Your task to perform on an android device: Do I have any events tomorrow? Image 0: 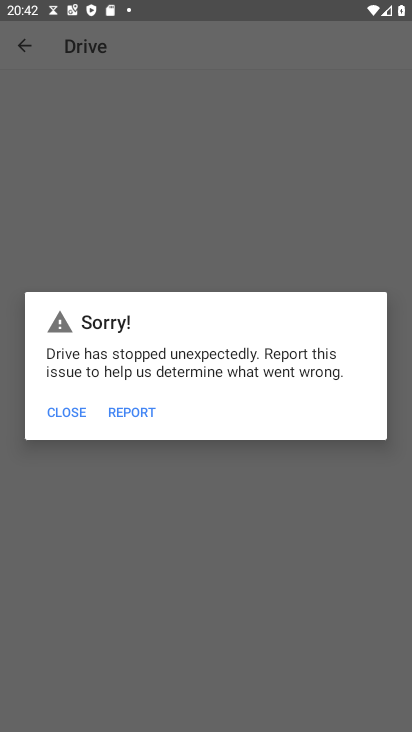
Step 0: press home button
Your task to perform on an android device: Do I have any events tomorrow? Image 1: 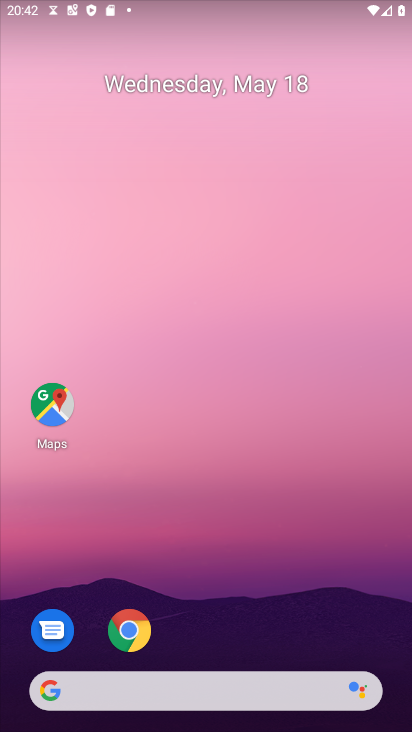
Step 1: drag from (146, 678) to (217, 152)
Your task to perform on an android device: Do I have any events tomorrow? Image 2: 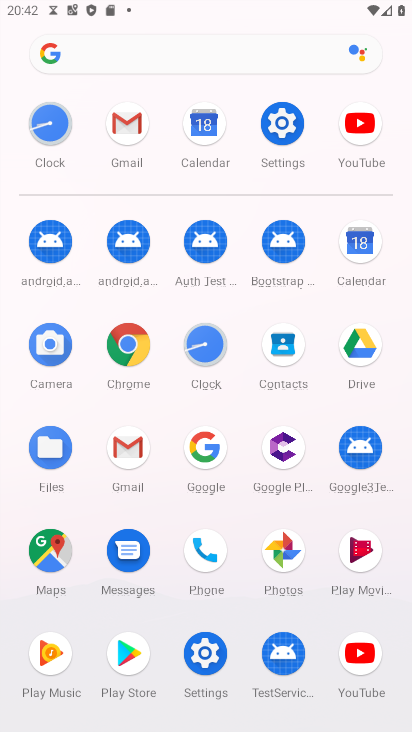
Step 2: click (364, 246)
Your task to perform on an android device: Do I have any events tomorrow? Image 3: 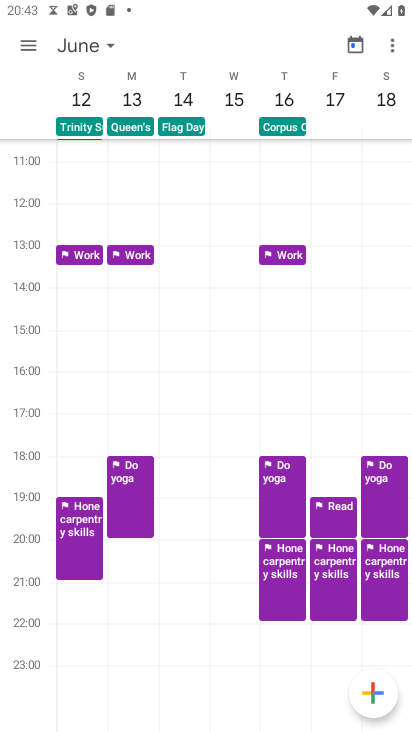
Step 3: click (72, 47)
Your task to perform on an android device: Do I have any events tomorrow? Image 4: 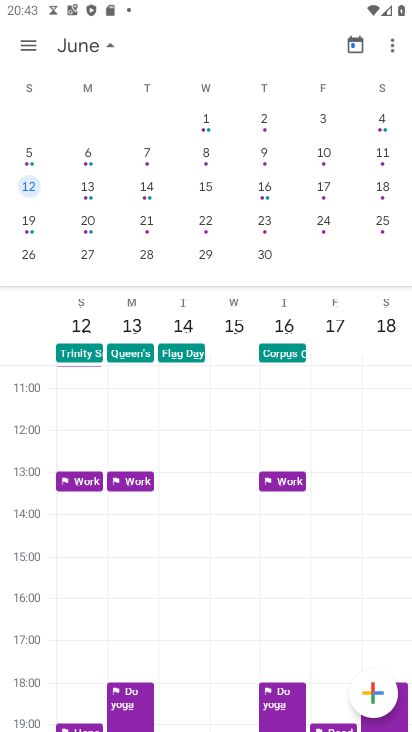
Step 4: drag from (56, 207) to (405, 235)
Your task to perform on an android device: Do I have any events tomorrow? Image 5: 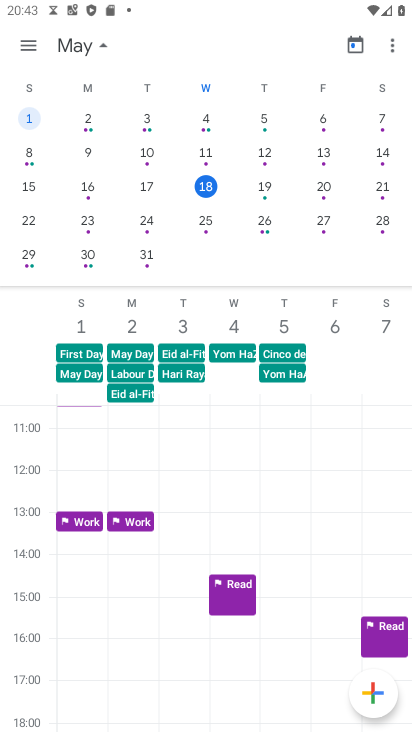
Step 5: click (268, 189)
Your task to perform on an android device: Do I have any events tomorrow? Image 6: 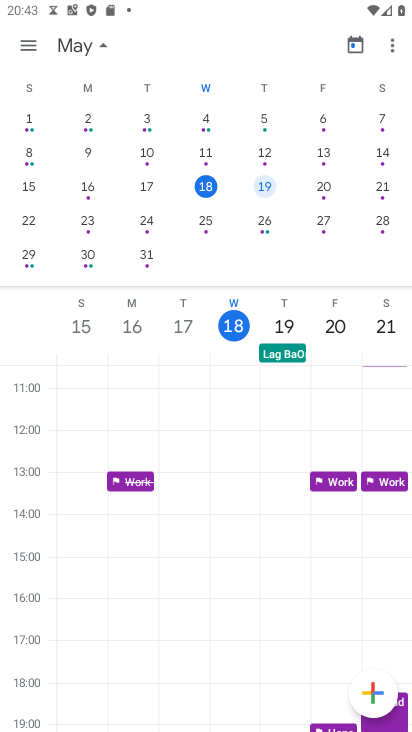
Step 6: click (31, 44)
Your task to perform on an android device: Do I have any events tomorrow? Image 7: 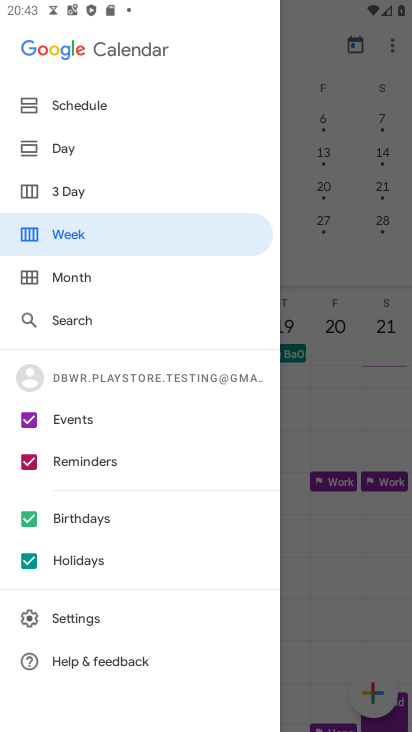
Step 7: click (94, 101)
Your task to perform on an android device: Do I have any events tomorrow? Image 8: 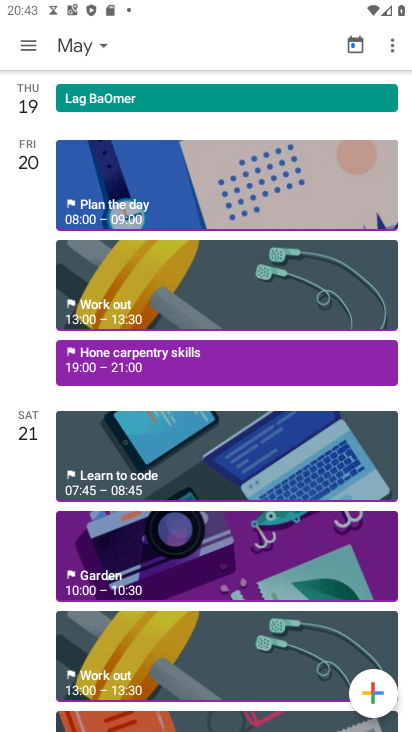
Step 8: click (134, 94)
Your task to perform on an android device: Do I have any events tomorrow? Image 9: 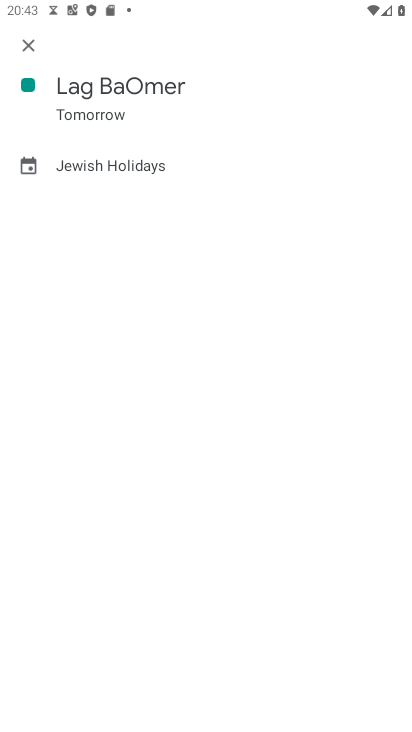
Step 9: task complete